Your task to perform on an android device: check data usage Image 0: 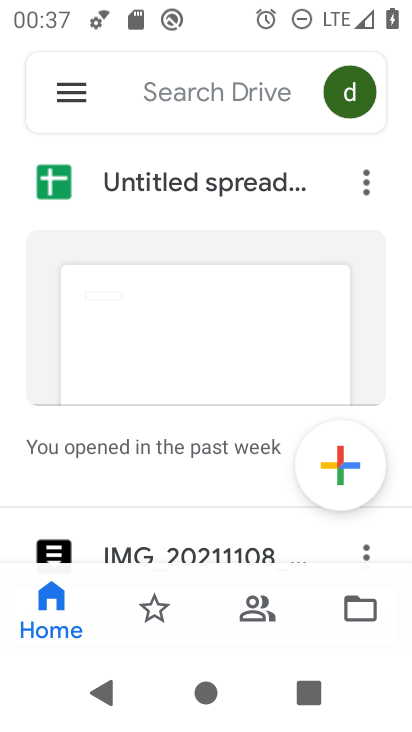
Step 0: press home button
Your task to perform on an android device: check data usage Image 1: 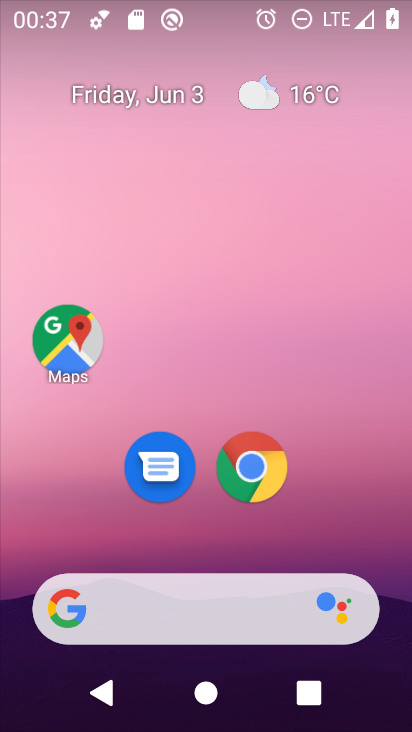
Step 1: drag from (409, 609) to (329, 19)
Your task to perform on an android device: check data usage Image 2: 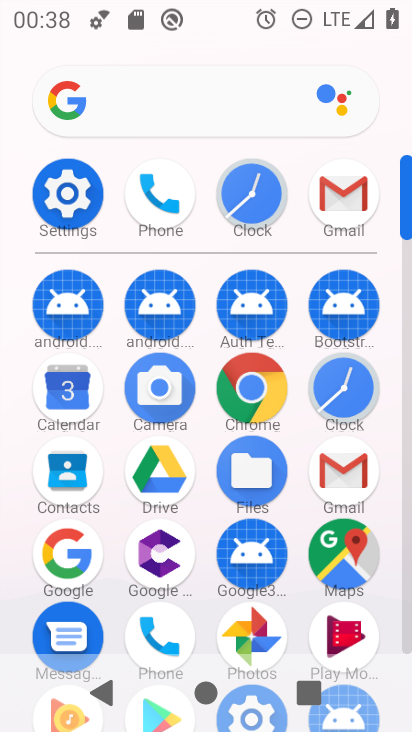
Step 2: click (409, 625)
Your task to perform on an android device: check data usage Image 3: 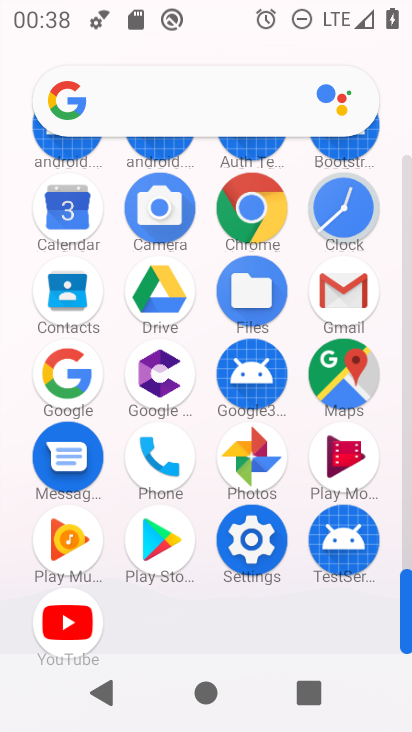
Step 3: click (253, 544)
Your task to perform on an android device: check data usage Image 4: 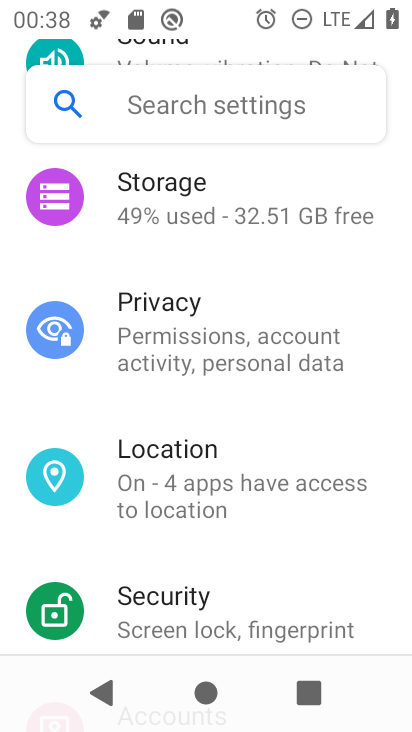
Step 4: drag from (266, 166) to (266, 451)
Your task to perform on an android device: check data usage Image 5: 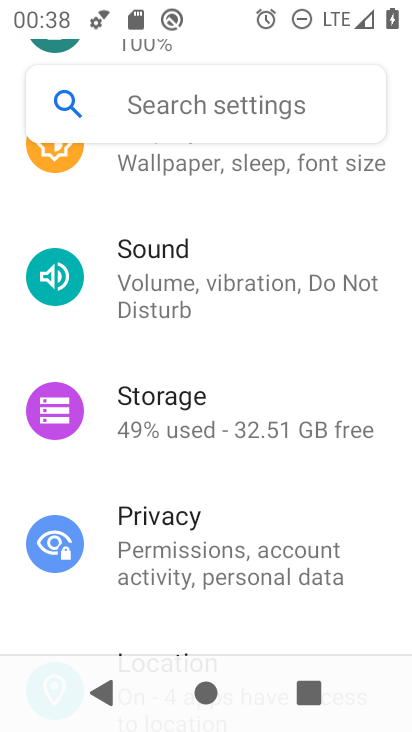
Step 5: drag from (313, 226) to (335, 623)
Your task to perform on an android device: check data usage Image 6: 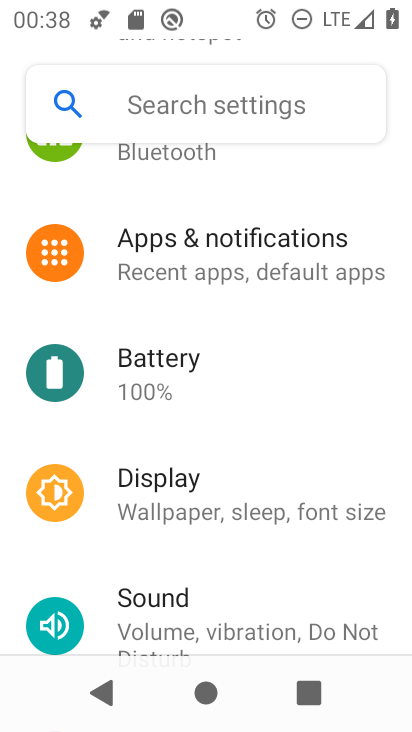
Step 6: drag from (316, 251) to (307, 605)
Your task to perform on an android device: check data usage Image 7: 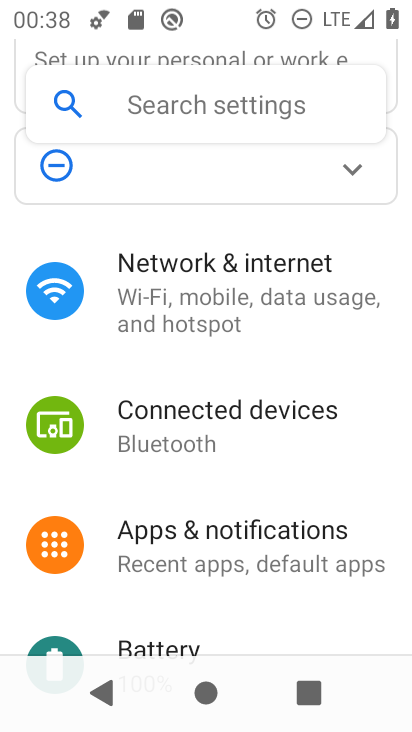
Step 7: click (206, 274)
Your task to perform on an android device: check data usage Image 8: 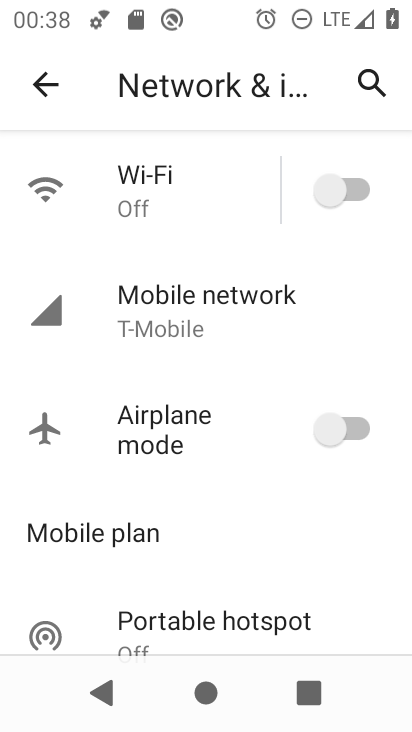
Step 8: click (161, 338)
Your task to perform on an android device: check data usage Image 9: 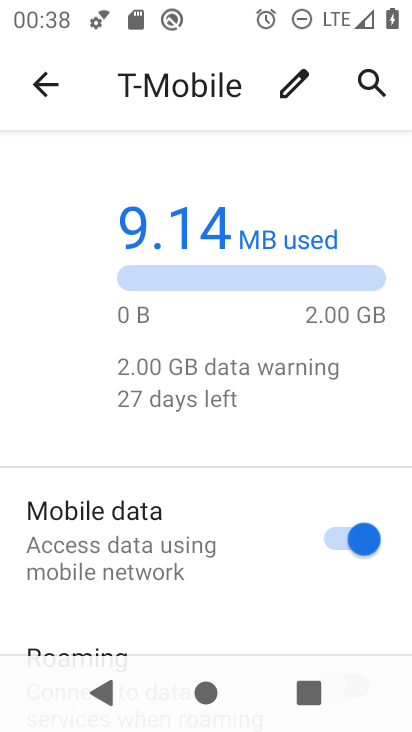
Step 9: task complete